Your task to perform on an android device: Show me recent news Image 0: 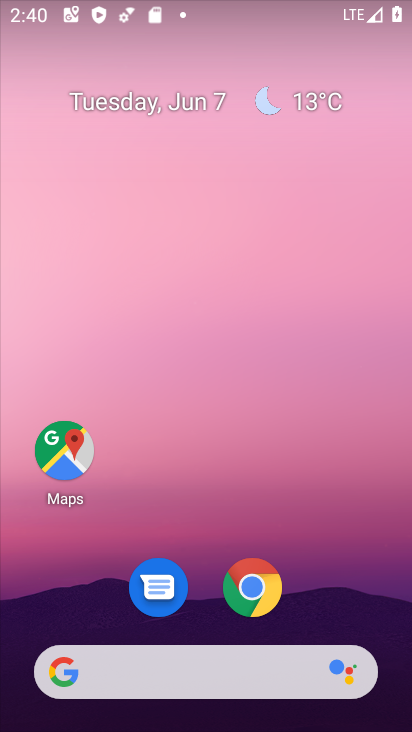
Step 0: click (230, 684)
Your task to perform on an android device: Show me recent news Image 1: 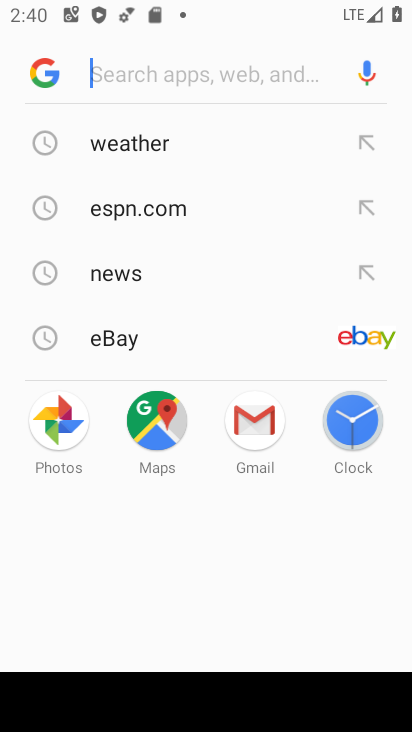
Step 1: click (147, 266)
Your task to perform on an android device: Show me recent news Image 2: 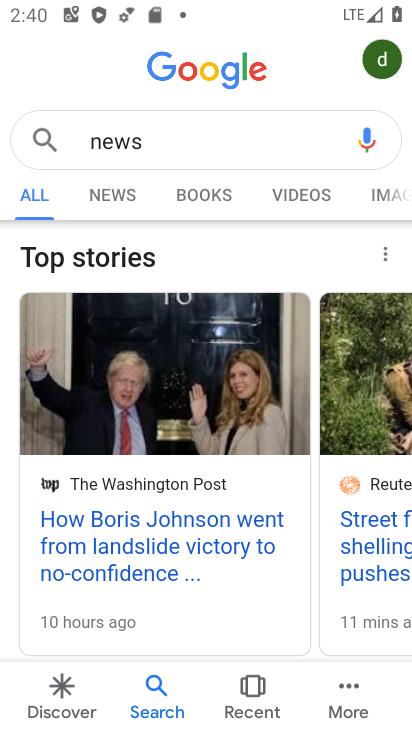
Step 2: click (93, 193)
Your task to perform on an android device: Show me recent news Image 3: 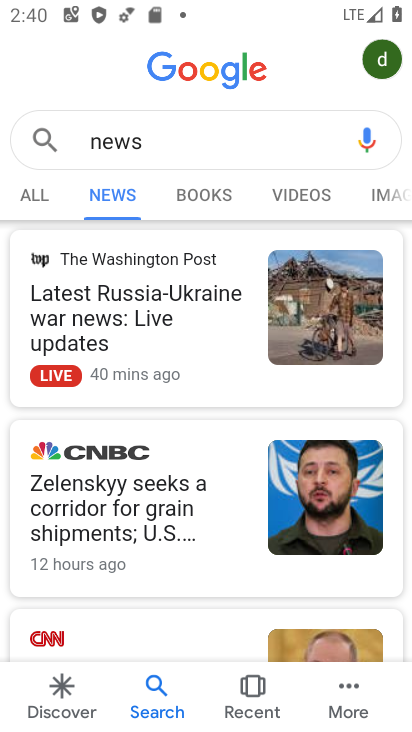
Step 3: task complete